Your task to perform on an android device: Clear all items from cart on amazon. Image 0: 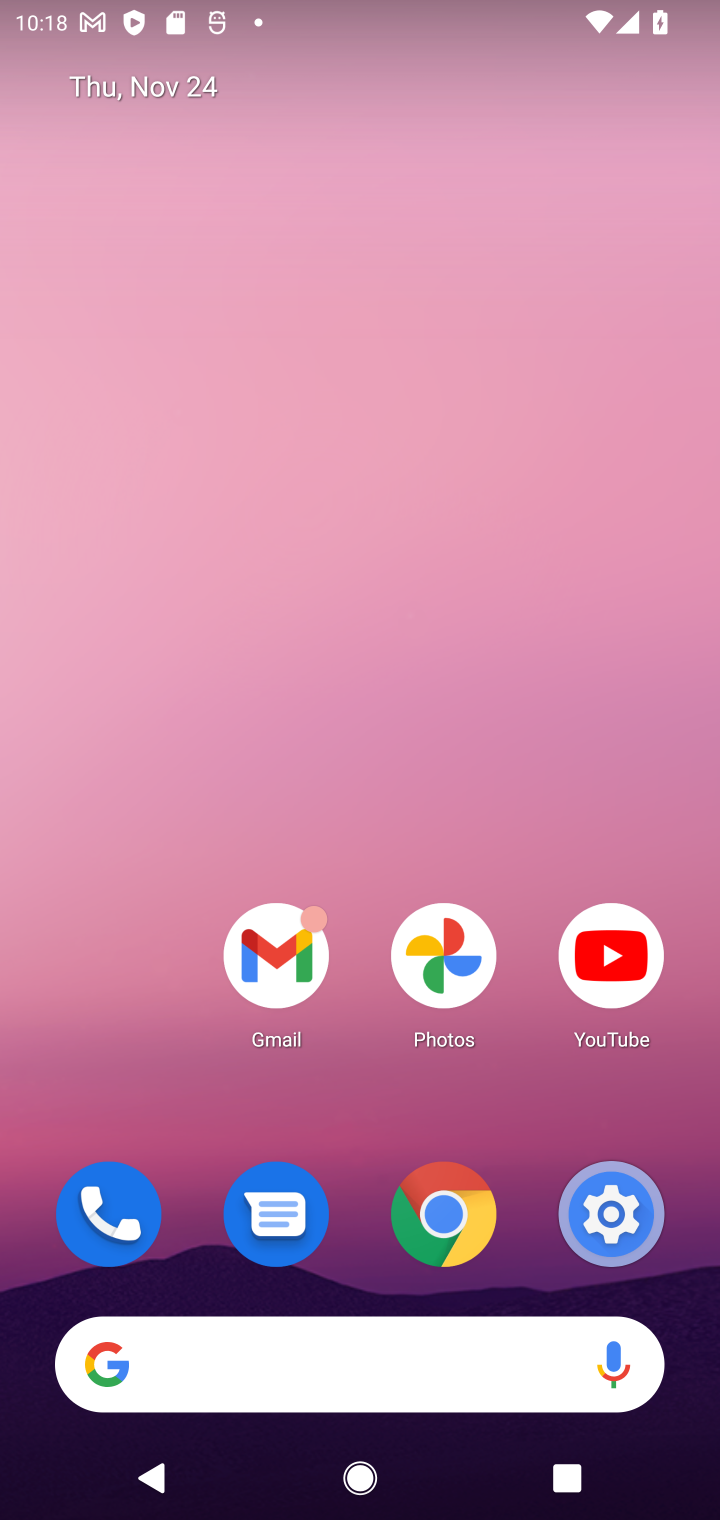
Step 0: click (262, 1371)
Your task to perform on an android device: Clear all items from cart on amazon. Image 1: 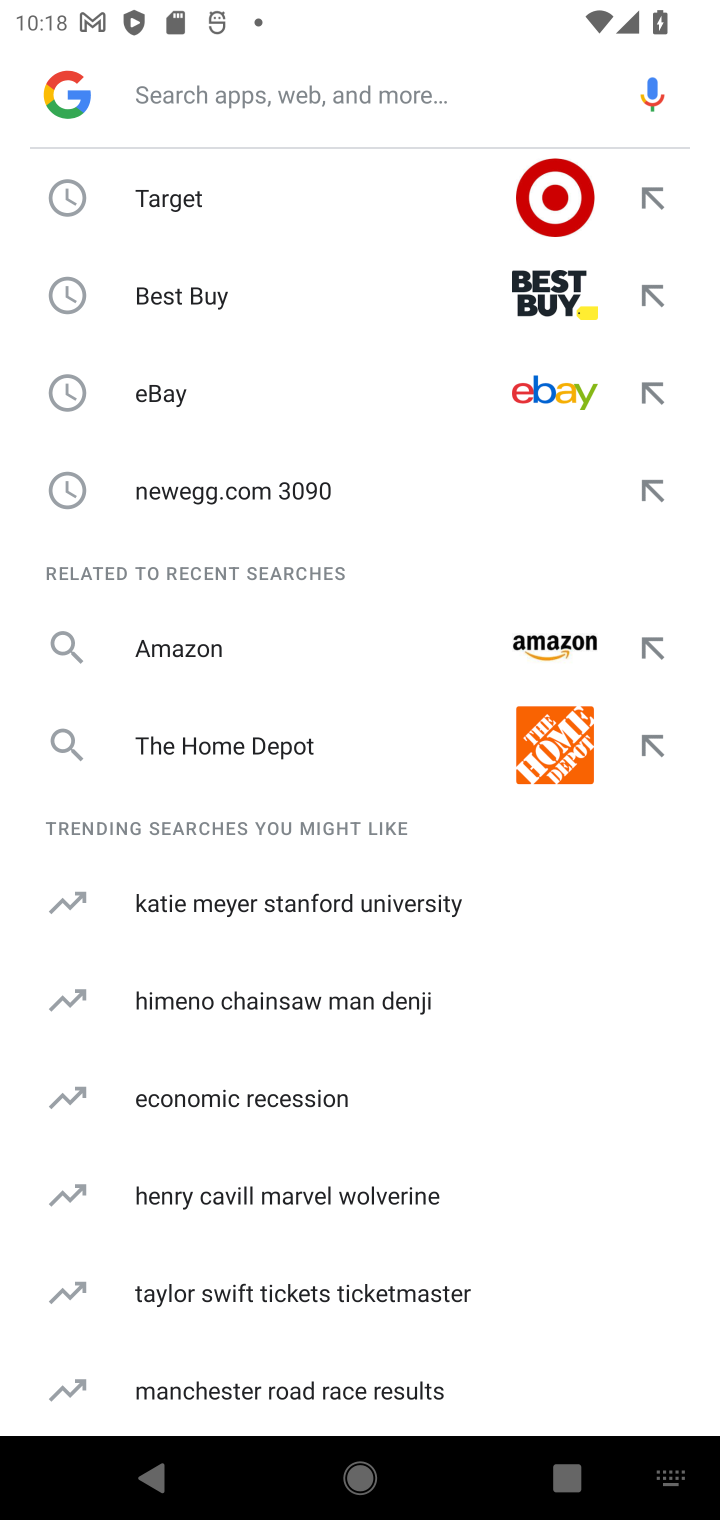
Step 1: type "amazon"
Your task to perform on an android device: Clear all items from cart on amazon. Image 2: 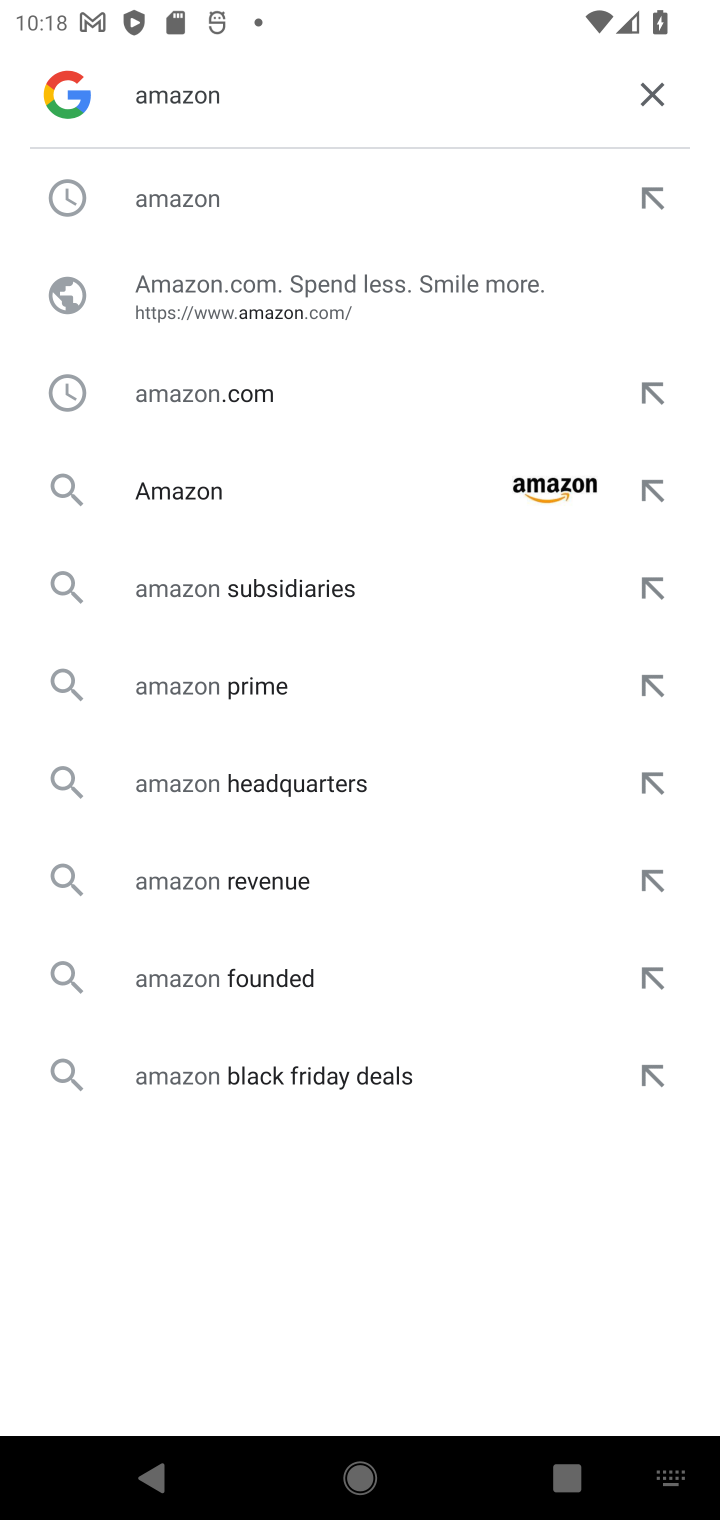
Step 2: click (288, 488)
Your task to perform on an android device: Clear all items from cart on amazon. Image 3: 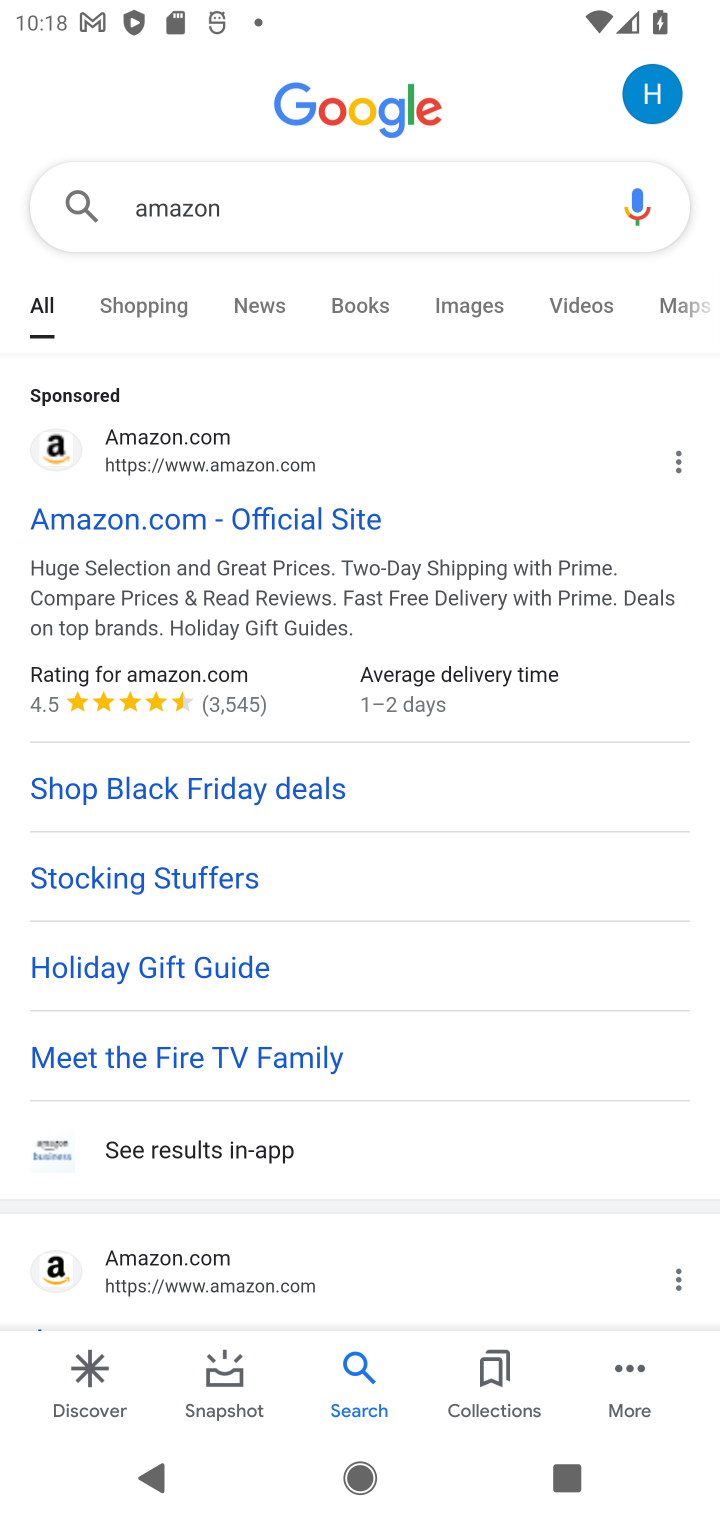
Step 3: click (131, 515)
Your task to perform on an android device: Clear all items from cart on amazon. Image 4: 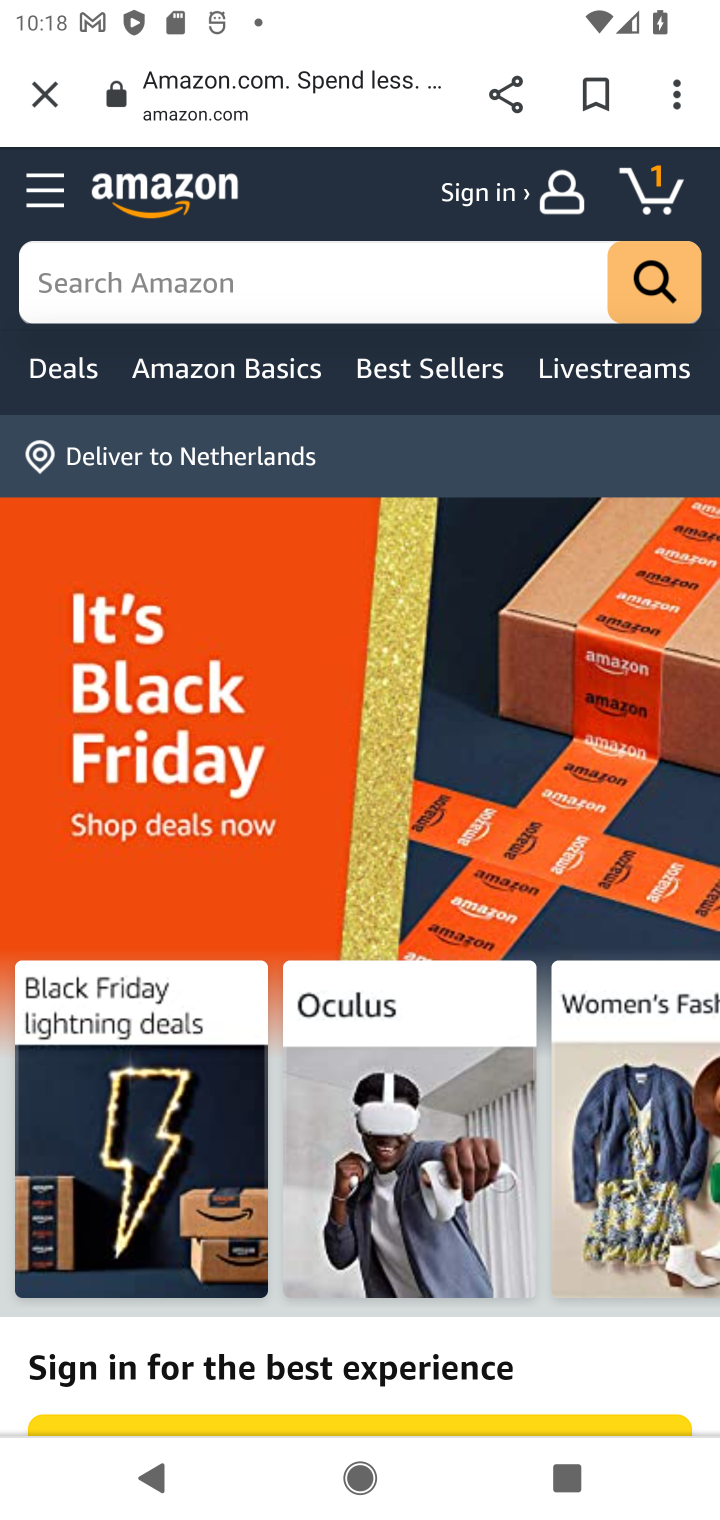
Step 4: click (453, 280)
Your task to perform on an android device: Clear all items from cart on amazon. Image 5: 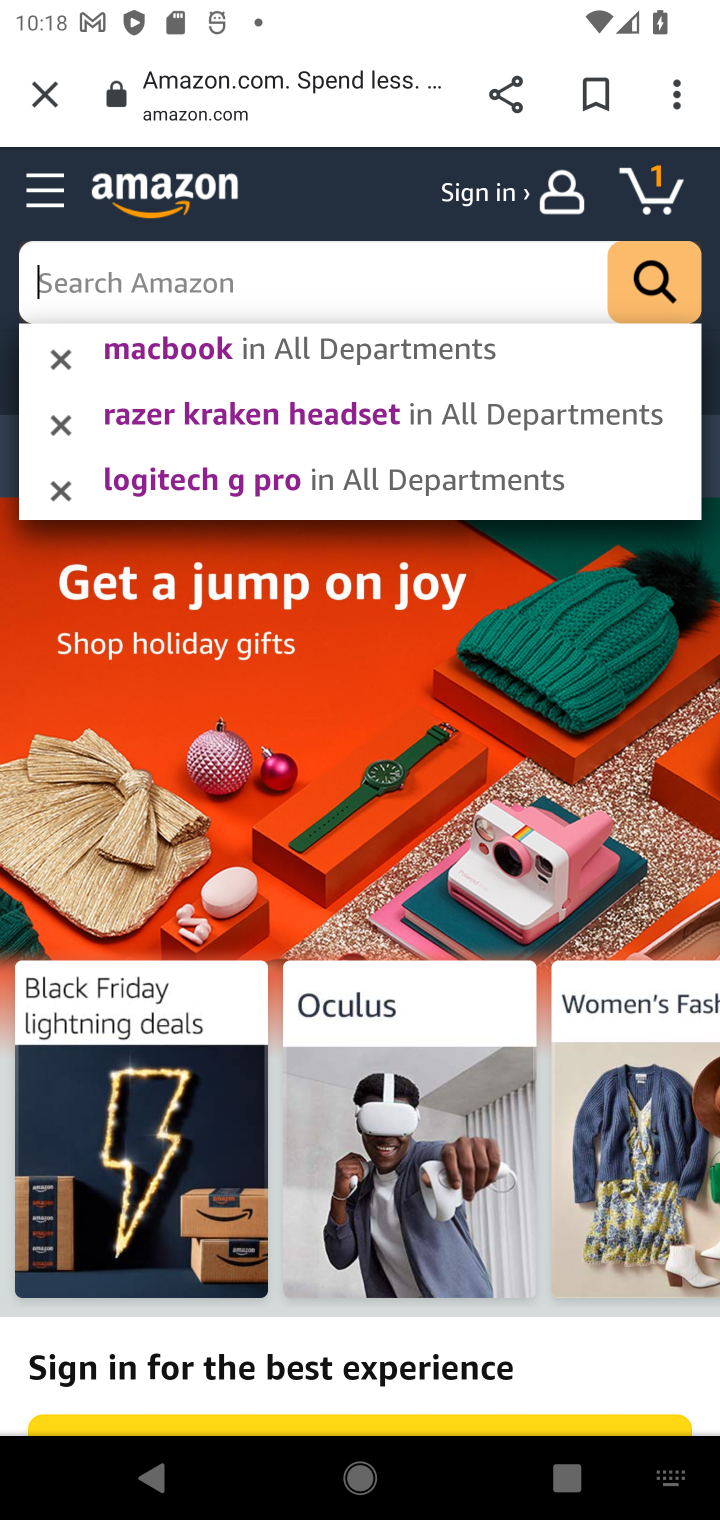
Step 5: click (656, 210)
Your task to perform on an android device: Clear all items from cart on amazon. Image 6: 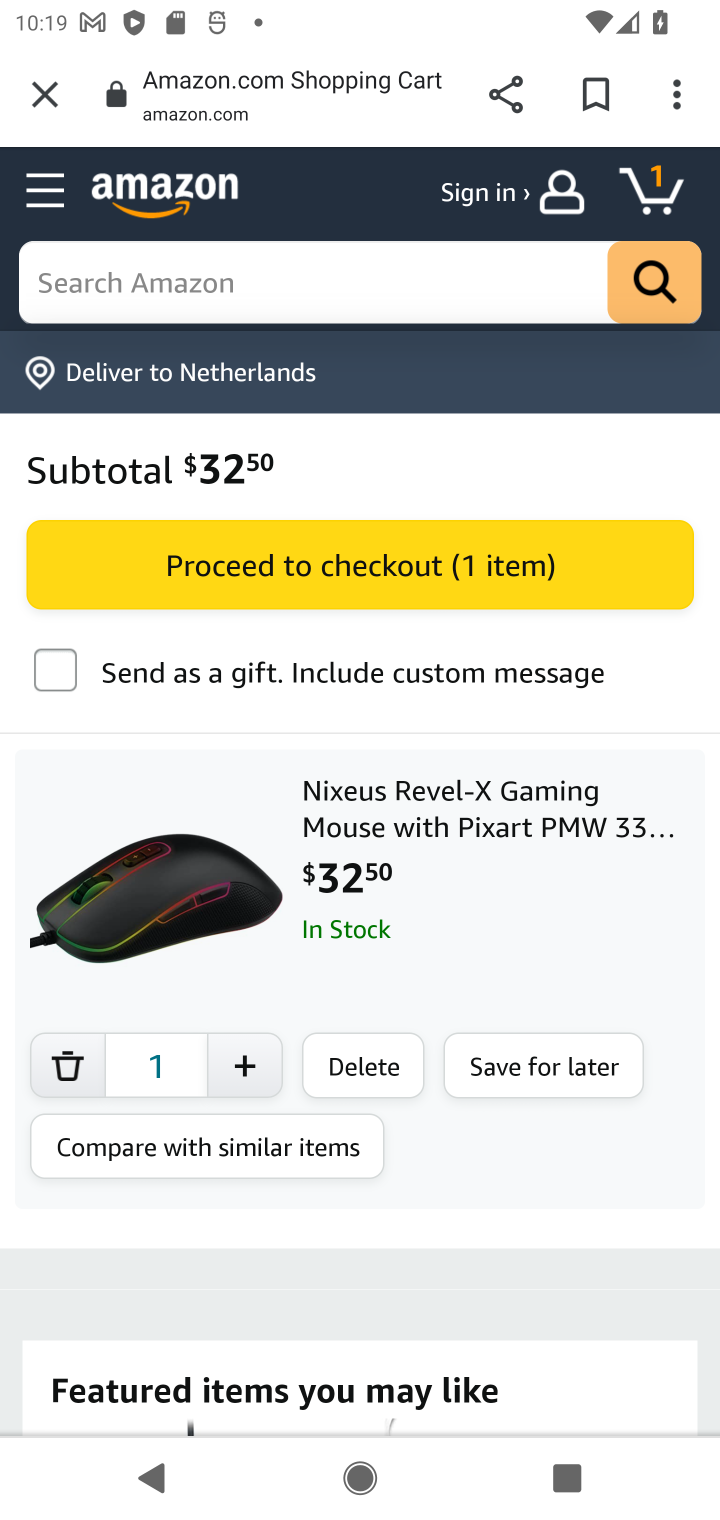
Step 6: click (318, 536)
Your task to perform on an android device: Clear all items from cart on amazon. Image 7: 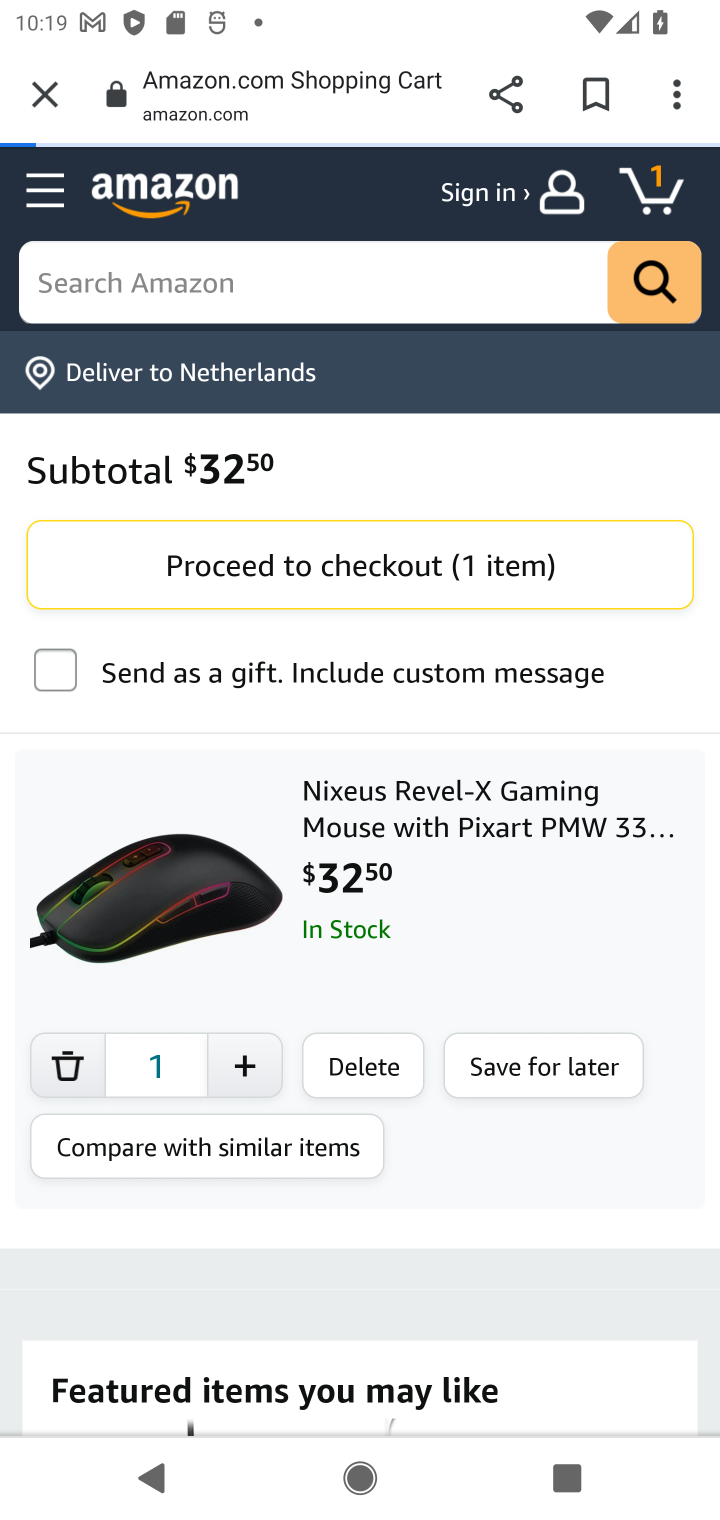
Step 7: task complete